Your task to perform on an android device: Go to network settings Image 0: 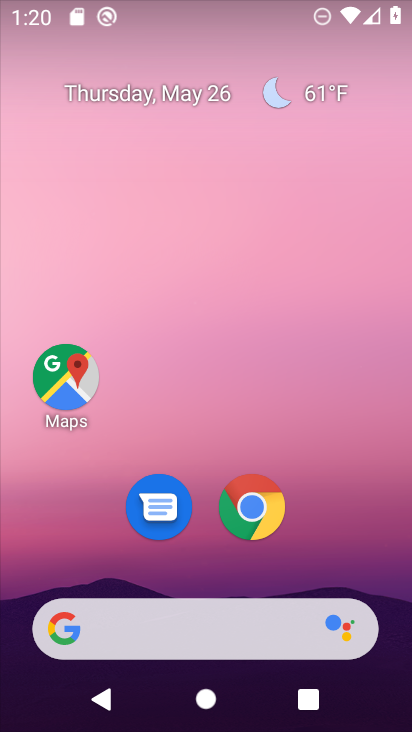
Step 0: drag from (349, 585) to (276, 97)
Your task to perform on an android device: Go to network settings Image 1: 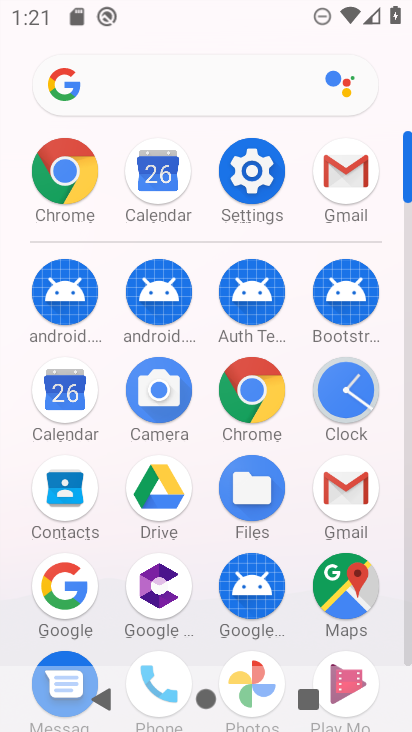
Step 1: click (245, 164)
Your task to perform on an android device: Go to network settings Image 2: 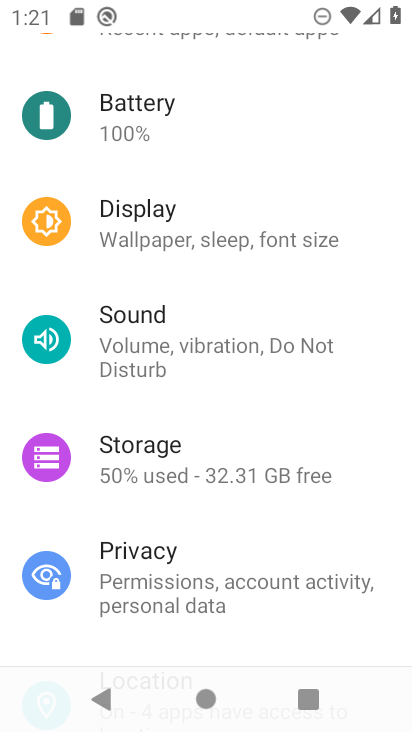
Step 2: drag from (144, 222) to (125, 685)
Your task to perform on an android device: Go to network settings Image 3: 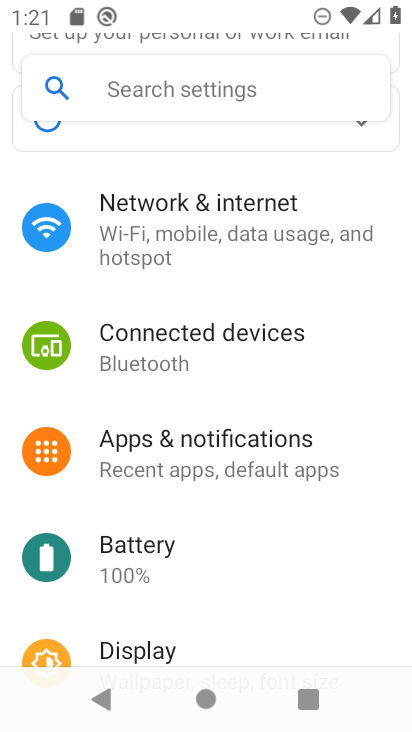
Step 3: click (129, 256)
Your task to perform on an android device: Go to network settings Image 4: 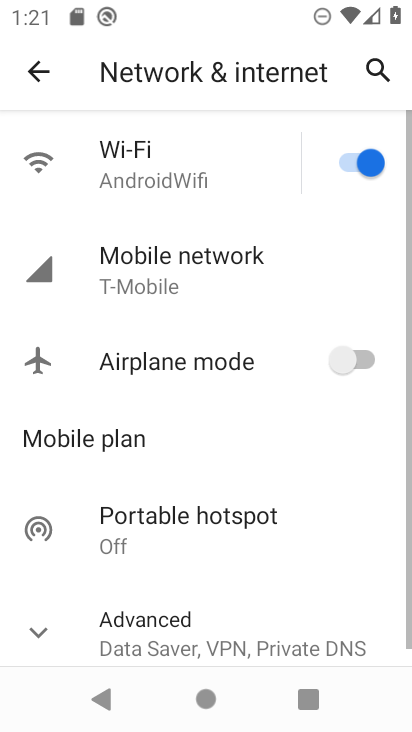
Step 4: task complete